Your task to perform on an android device: Install the Wikipedia app Image 0: 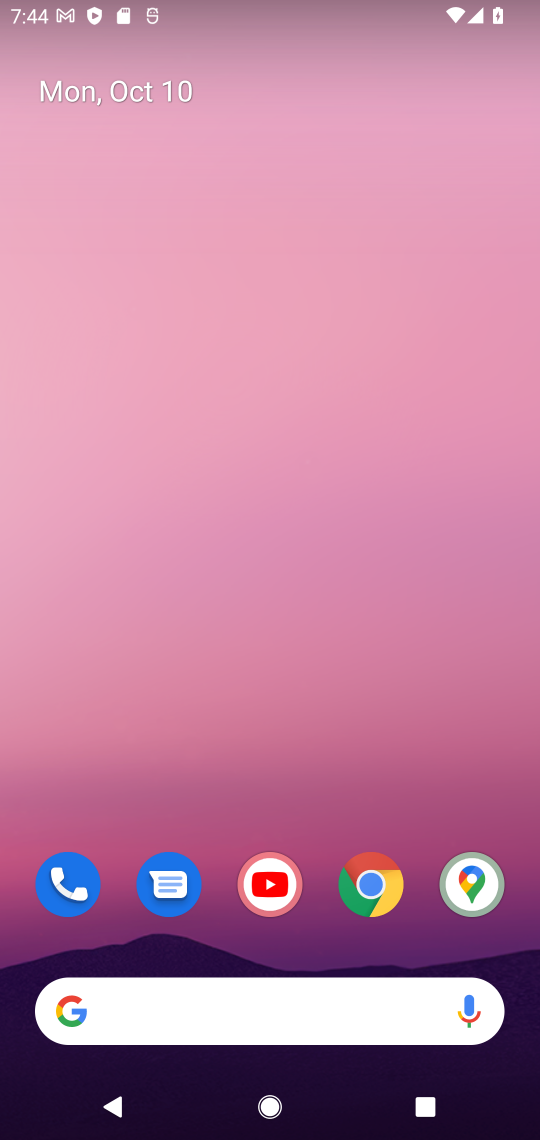
Step 0: drag from (392, 821) to (393, 0)
Your task to perform on an android device: Install the Wikipedia app Image 1: 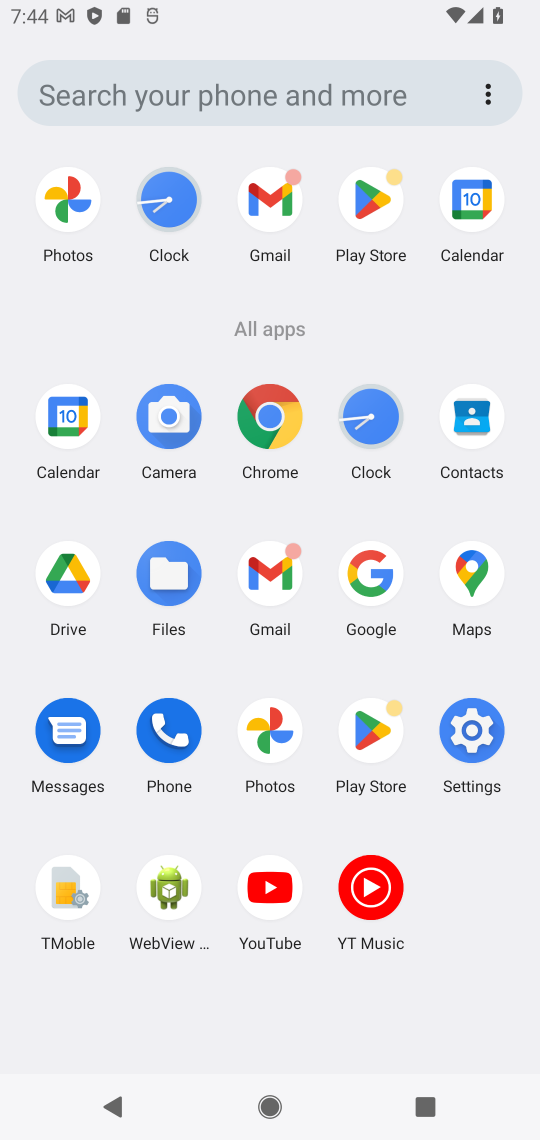
Step 1: click (381, 748)
Your task to perform on an android device: Install the Wikipedia app Image 2: 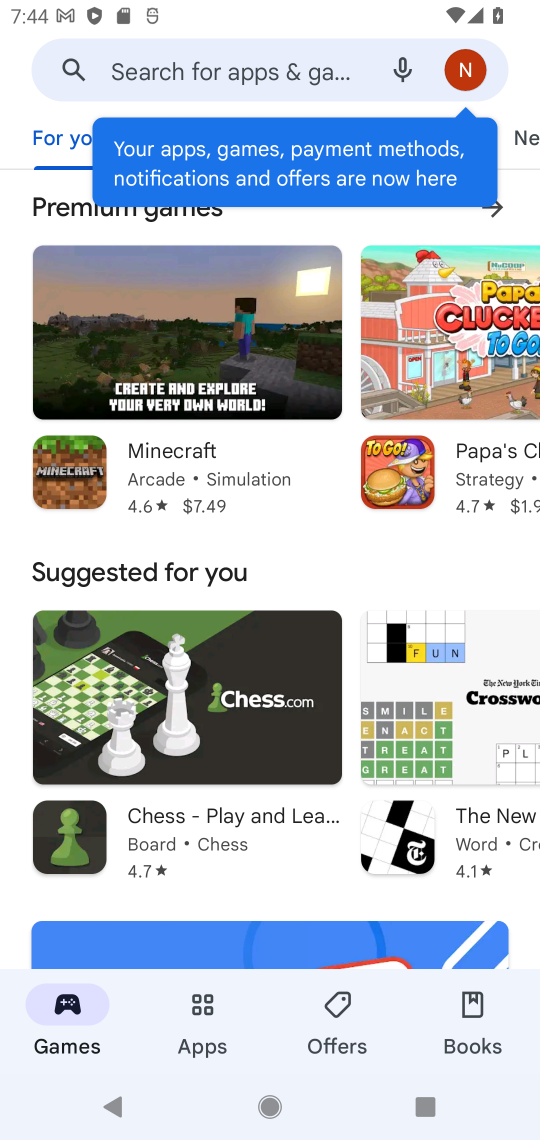
Step 2: click (313, 63)
Your task to perform on an android device: Install the Wikipedia app Image 3: 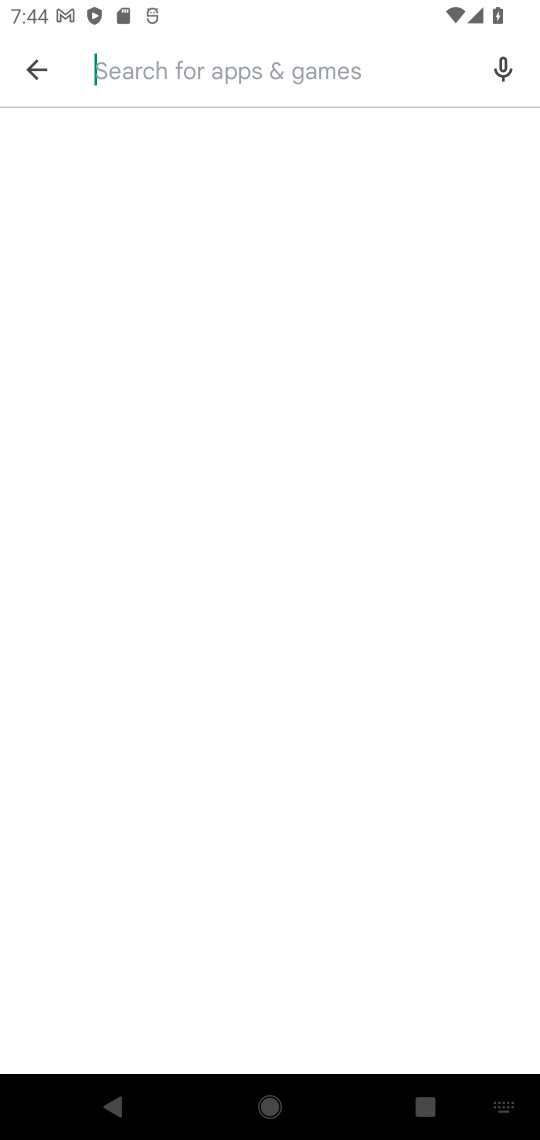
Step 3: type "wikipedia"
Your task to perform on an android device: Install the Wikipedia app Image 4: 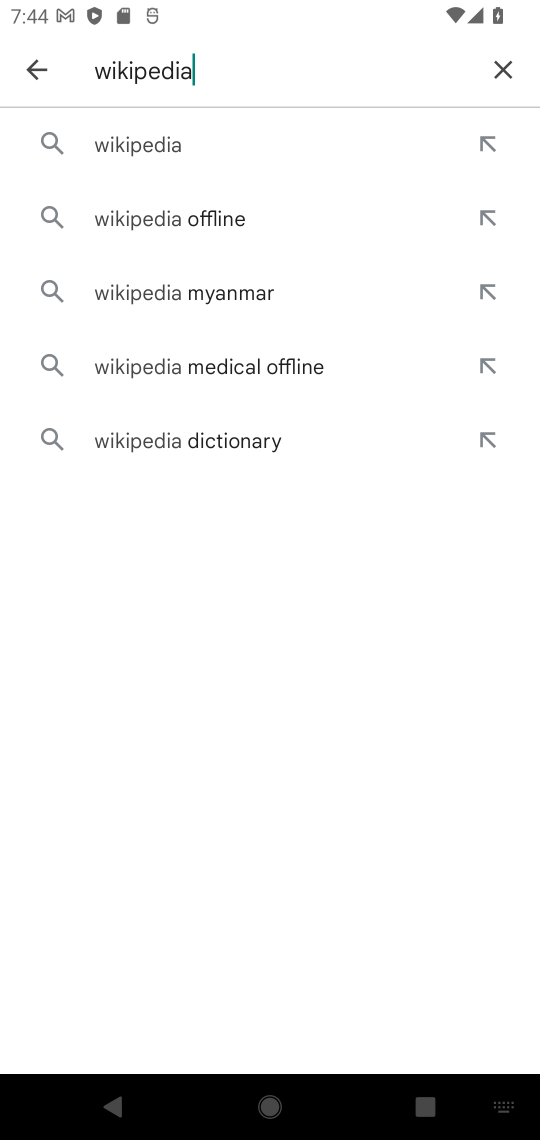
Step 4: click (317, 136)
Your task to perform on an android device: Install the Wikipedia app Image 5: 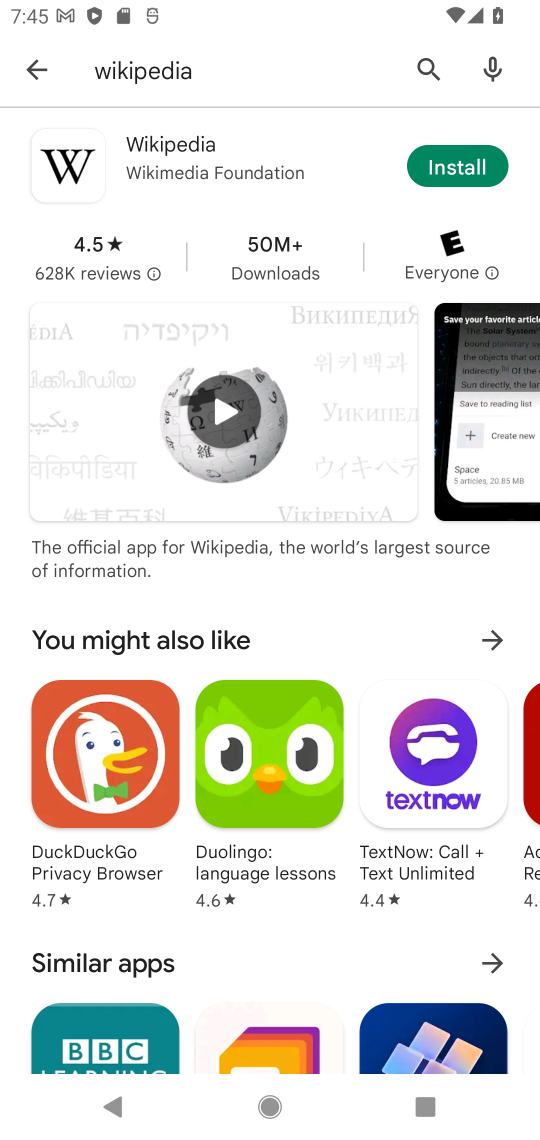
Step 5: click (485, 175)
Your task to perform on an android device: Install the Wikipedia app Image 6: 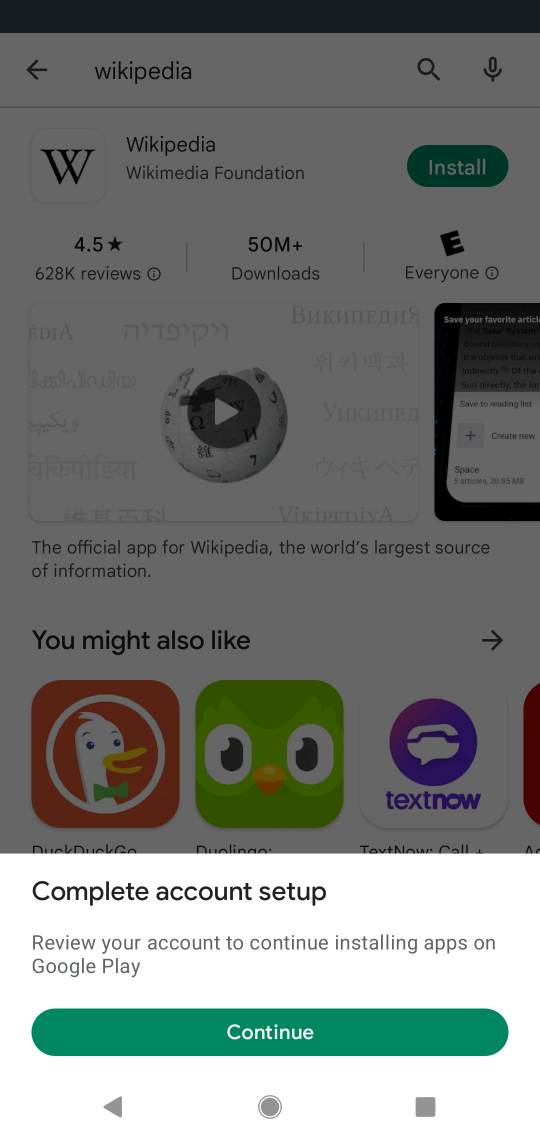
Step 6: click (425, 1039)
Your task to perform on an android device: Install the Wikipedia app Image 7: 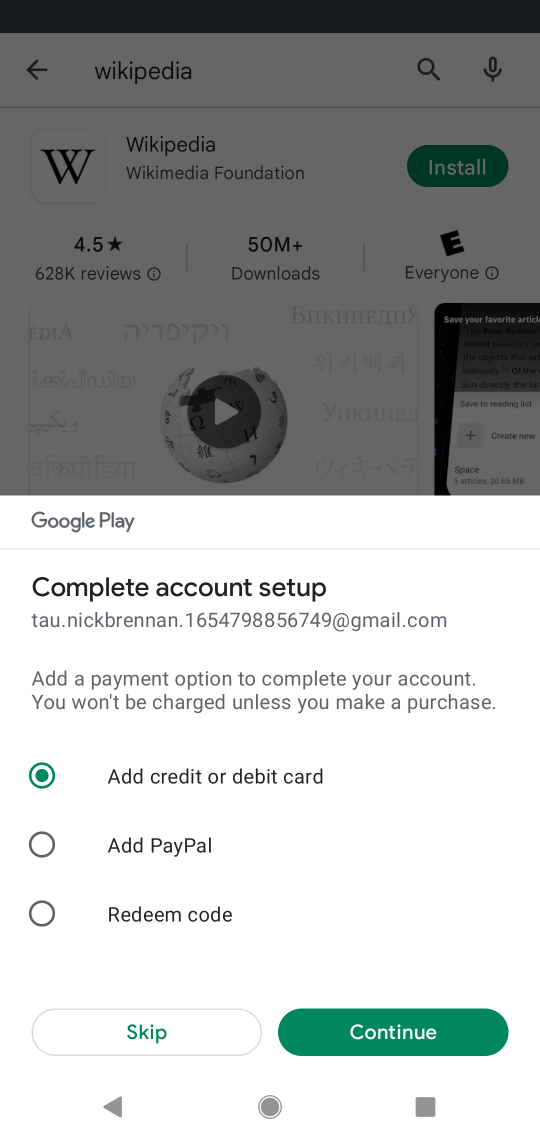
Step 7: click (115, 1034)
Your task to perform on an android device: Install the Wikipedia app Image 8: 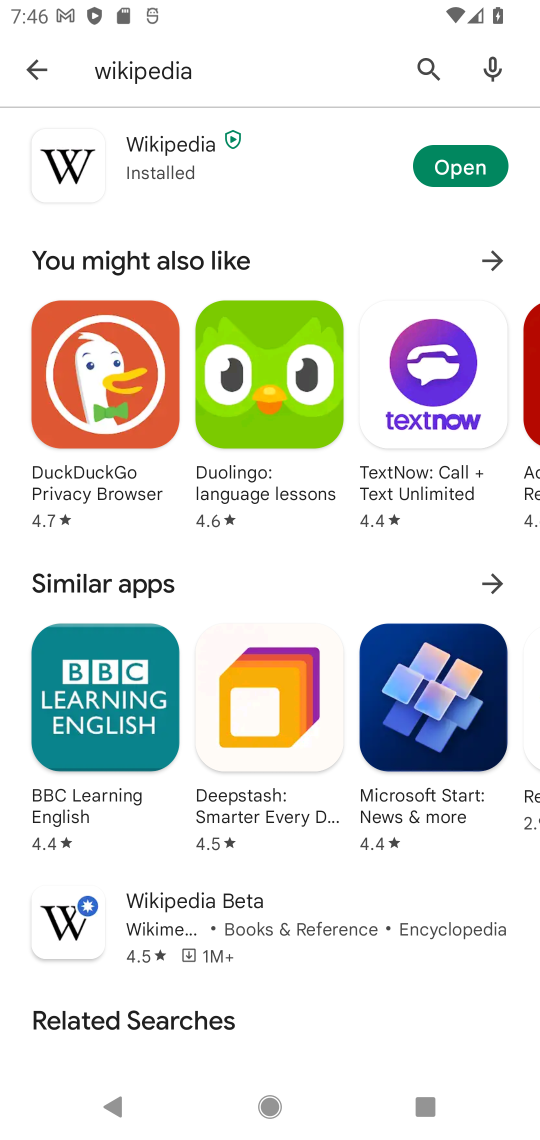
Step 8: click (465, 172)
Your task to perform on an android device: Install the Wikipedia app Image 9: 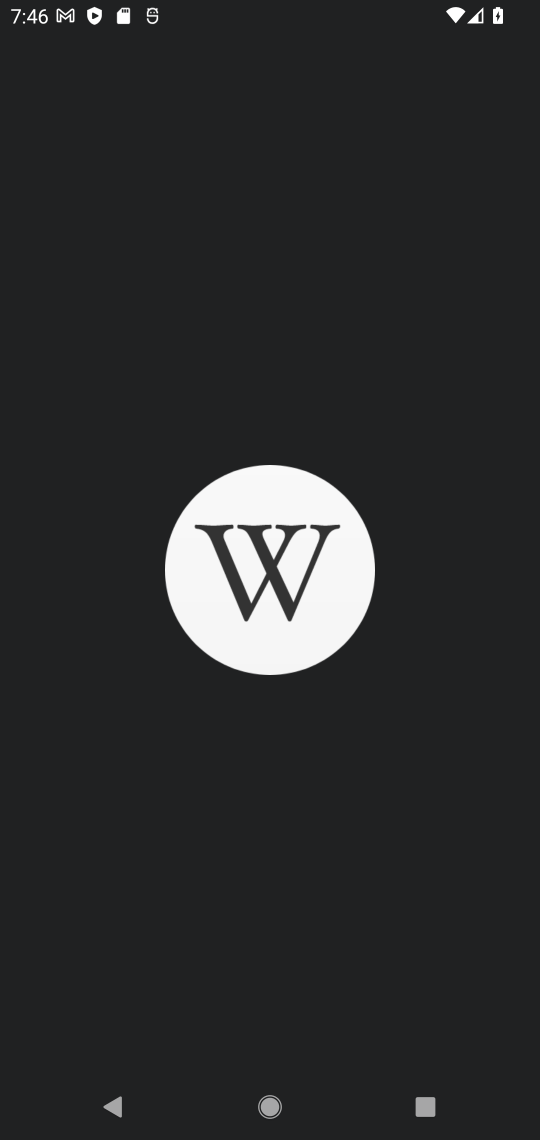
Step 9: task complete